Your task to perform on an android device: turn off notifications settings in the gmail app Image 0: 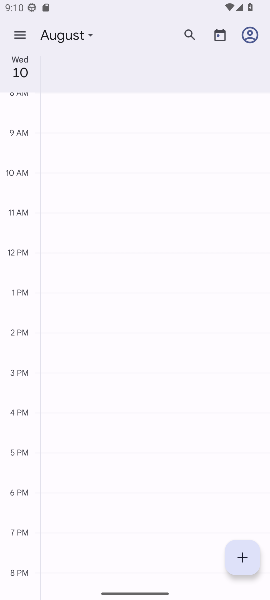
Step 0: press home button
Your task to perform on an android device: turn off notifications settings in the gmail app Image 1: 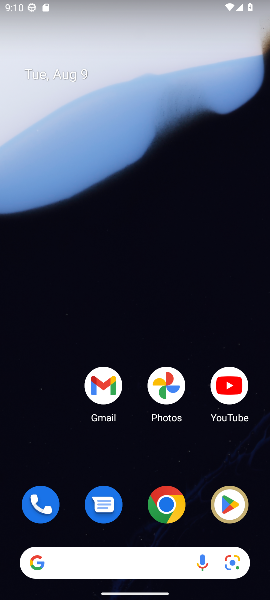
Step 1: click (102, 384)
Your task to perform on an android device: turn off notifications settings in the gmail app Image 2: 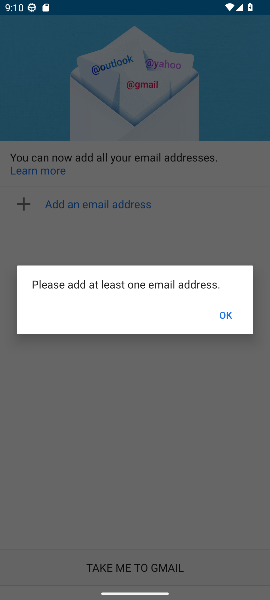
Step 2: click (225, 308)
Your task to perform on an android device: turn off notifications settings in the gmail app Image 3: 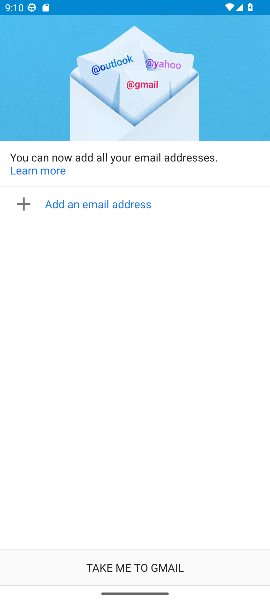
Step 3: click (154, 563)
Your task to perform on an android device: turn off notifications settings in the gmail app Image 4: 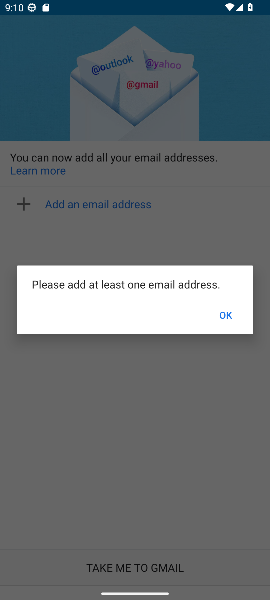
Step 4: click (224, 303)
Your task to perform on an android device: turn off notifications settings in the gmail app Image 5: 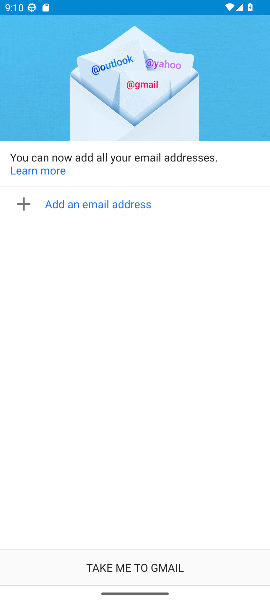
Step 5: task complete